Your task to perform on an android device: Is it going to rain tomorrow? Image 0: 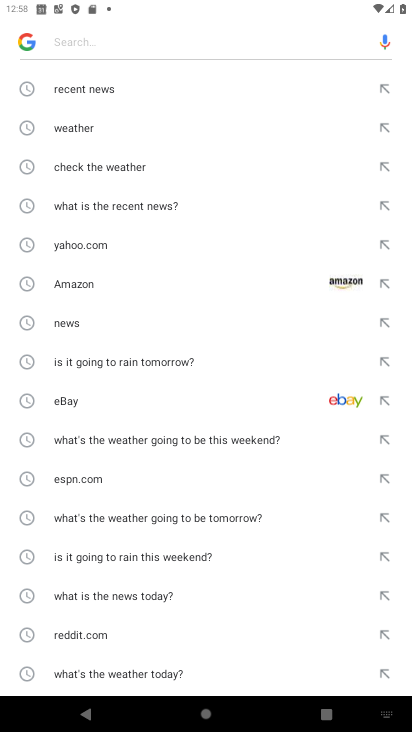
Step 0: press home button
Your task to perform on an android device: Is it going to rain tomorrow? Image 1: 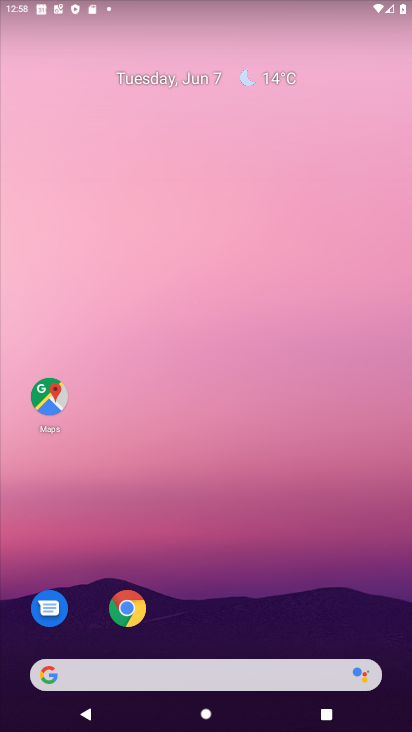
Step 1: click (163, 671)
Your task to perform on an android device: Is it going to rain tomorrow? Image 2: 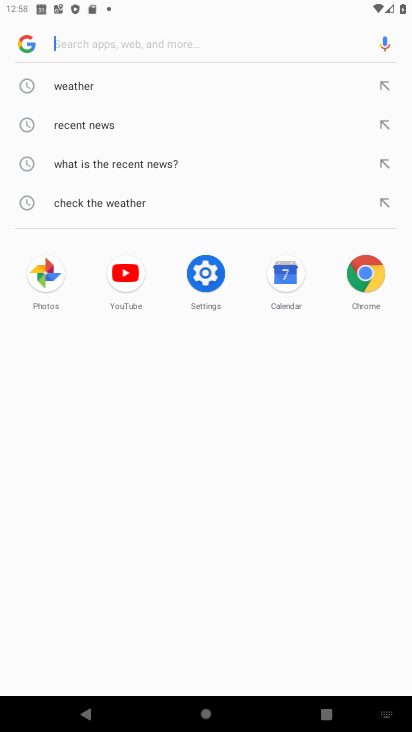
Step 2: type "Is it going to rain tomorrow?"
Your task to perform on an android device: Is it going to rain tomorrow? Image 3: 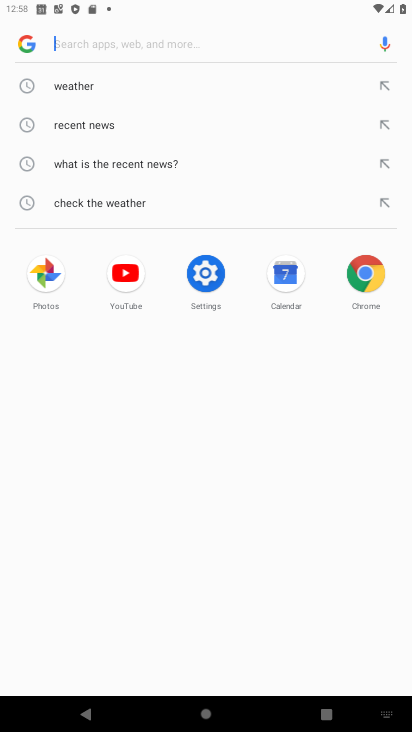
Step 3: click (176, 38)
Your task to perform on an android device: Is it going to rain tomorrow? Image 4: 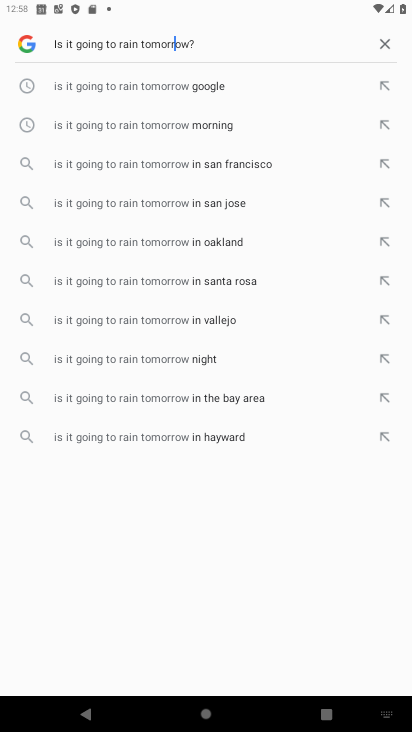
Step 4: click (143, 91)
Your task to perform on an android device: Is it going to rain tomorrow? Image 5: 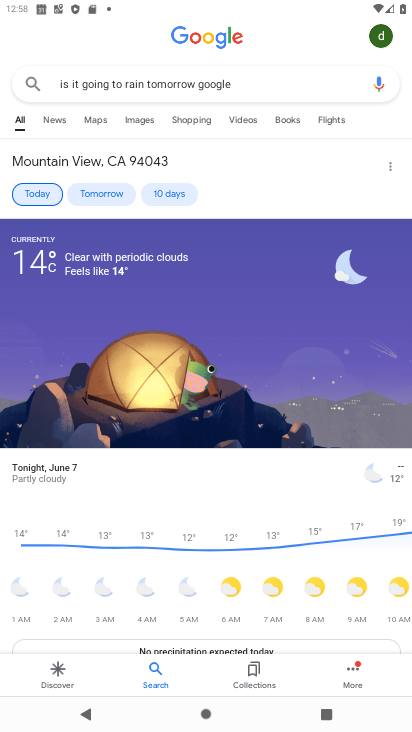
Step 5: task complete